Your task to perform on an android device: Open CNN.com Image 0: 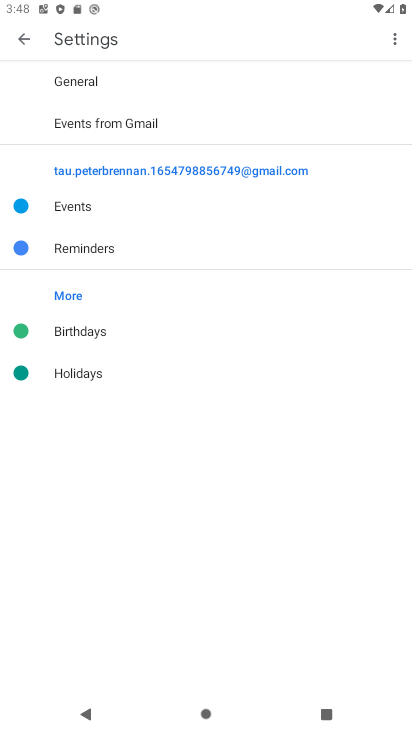
Step 0: press home button
Your task to perform on an android device: Open CNN.com Image 1: 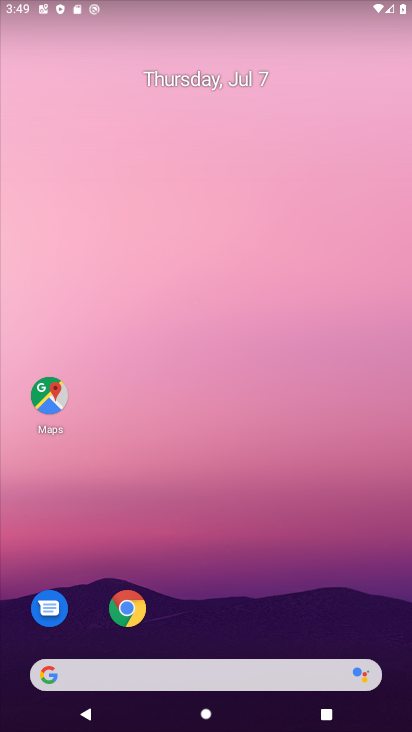
Step 1: click (128, 609)
Your task to perform on an android device: Open CNN.com Image 2: 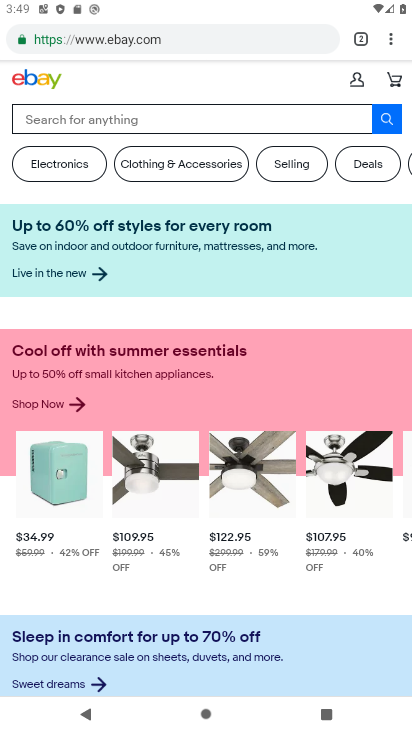
Step 2: click (290, 36)
Your task to perform on an android device: Open CNN.com Image 3: 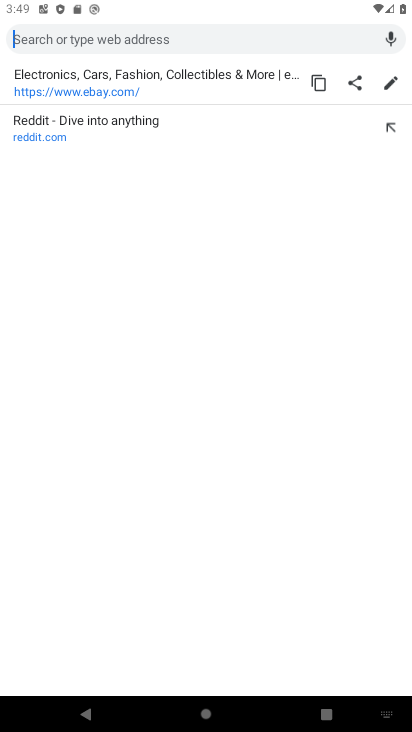
Step 3: type "CNN.com"
Your task to perform on an android device: Open CNN.com Image 4: 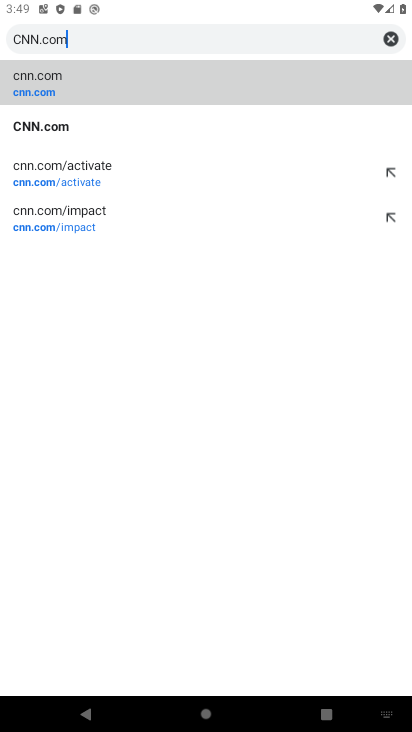
Step 4: click (87, 94)
Your task to perform on an android device: Open CNN.com Image 5: 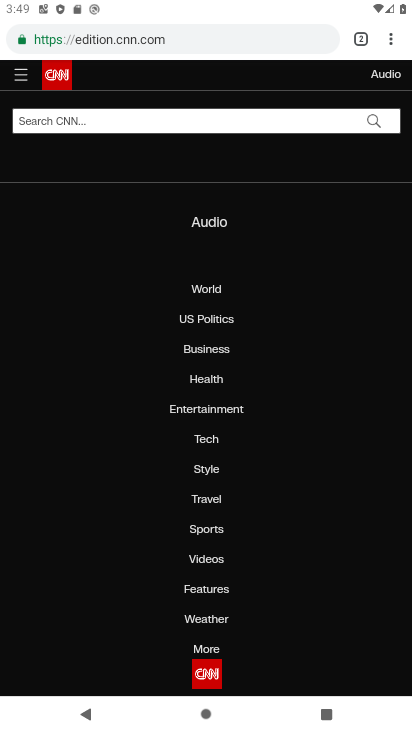
Step 5: task complete